Your task to perform on an android device: Go to sound settings Image 0: 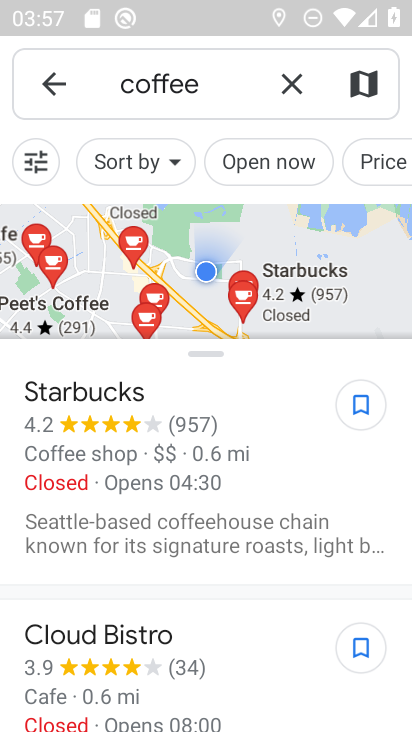
Step 0: press home button
Your task to perform on an android device: Go to sound settings Image 1: 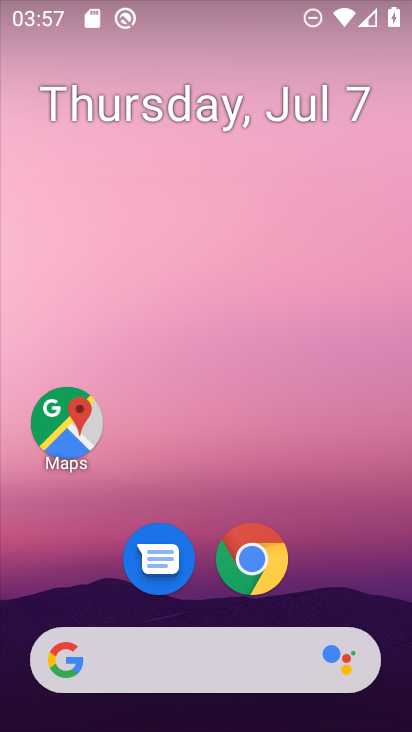
Step 1: drag from (350, 560) to (349, 248)
Your task to perform on an android device: Go to sound settings Image 2: 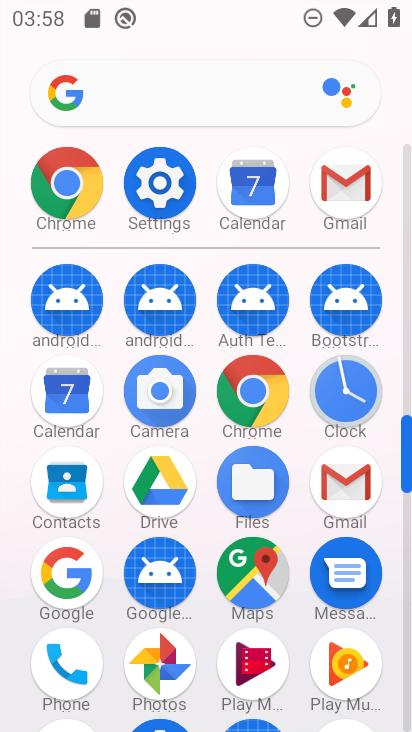
Step 2: click (173, 187)
Your task to perform on an android device: Go to sound settings Image 3: 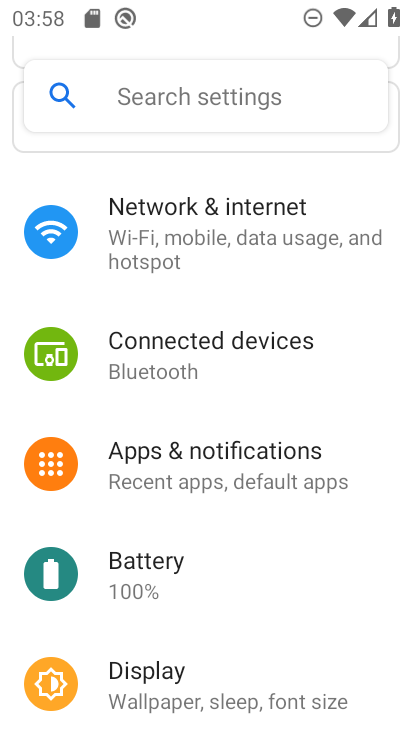
Step 3: drag from (360, 517) to (369, 417)
Your task to perform on an android device: Go to sound settings Image 4: 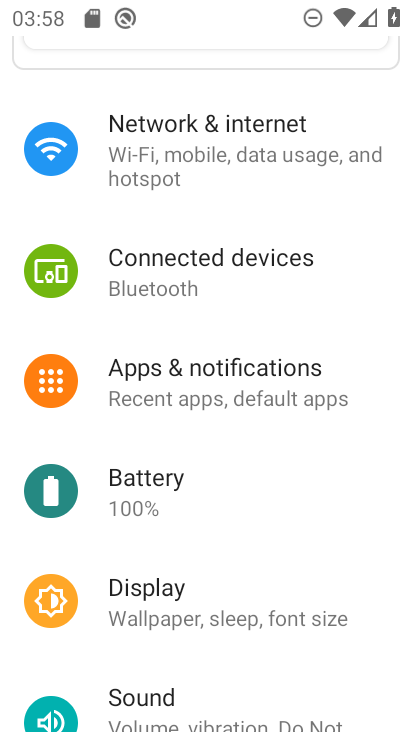
Step 4: drag from (347, 508) to (346, 407)
Your task to perform on an android device: Go to sound settings Image 5: 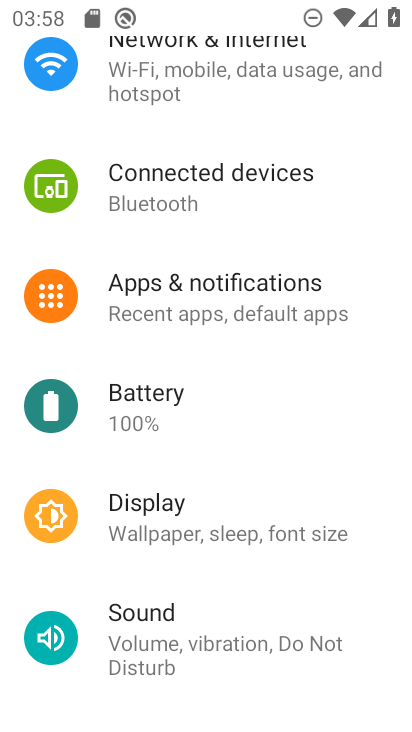
Step 5: drag from (330, 489) to (337, 386)
Your task to perform on an android device: Go to sound settings Image 6: 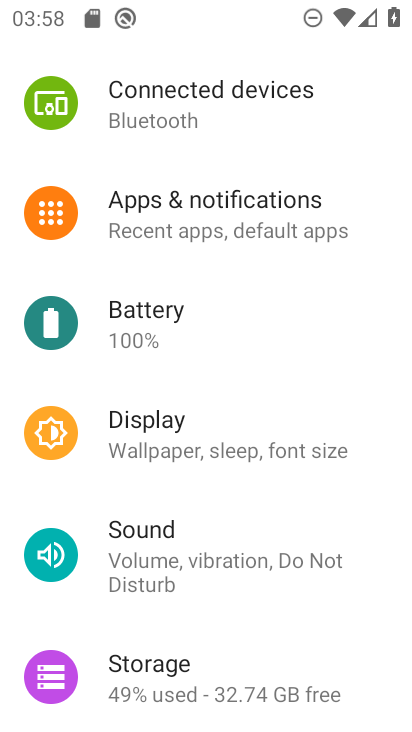
Step 6: drag from (334, 506) to (333, 393)
Your task to perform on an android device: Go to sound settings Image 7: 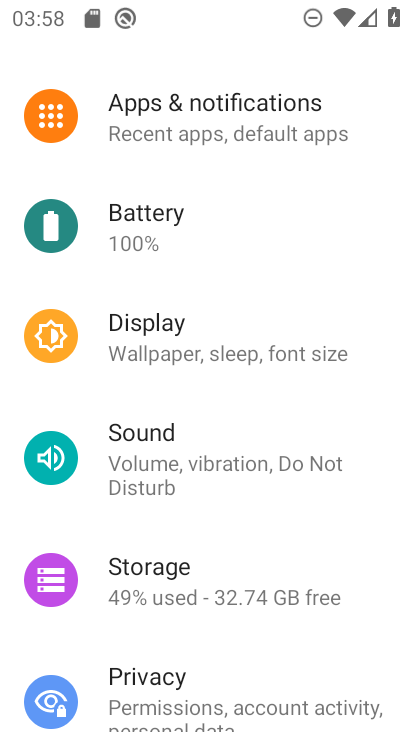
Step 7: drag from (368, 541) to (361, 398)
Your task to perform on an android device: Go to sound settings Image 8: 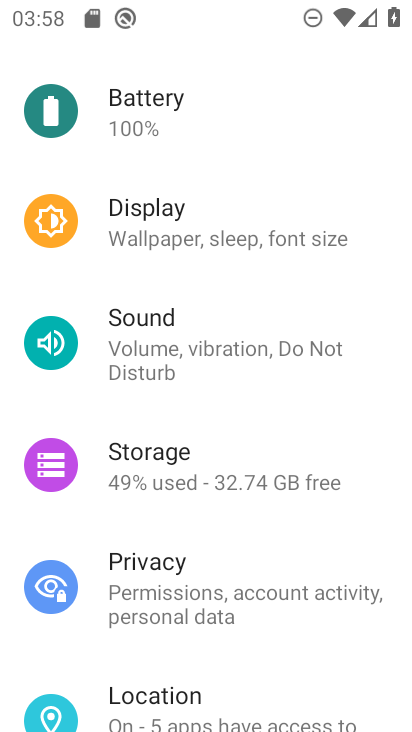
Step 8: drag from (348, 518) to (348, 391)
Your task to perform on an android device: Go to sound settings Image 9: 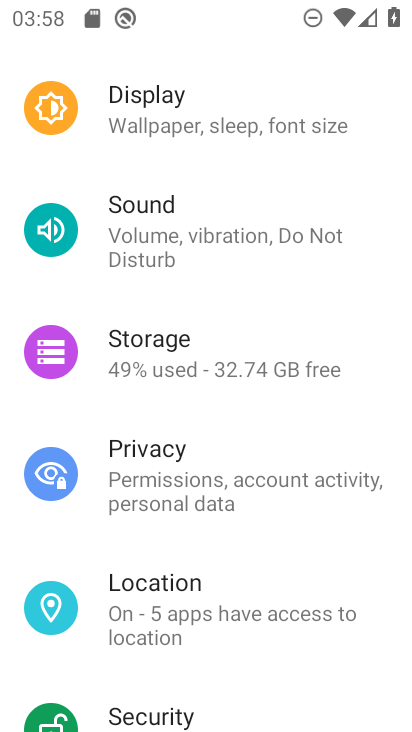
Step 9: drag from (346, 557) to (346, 427)
Your task to perform on an android device: Go to sound settings Image 10: 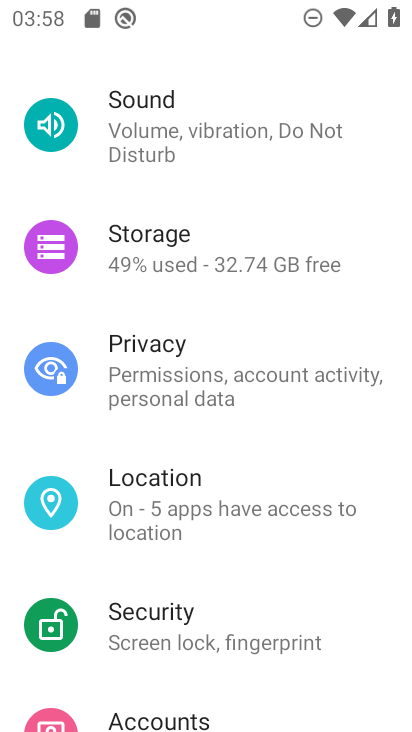
Step 10: click (291, 137)
Your task to perform on an android device: Go to sound settings Image 11: 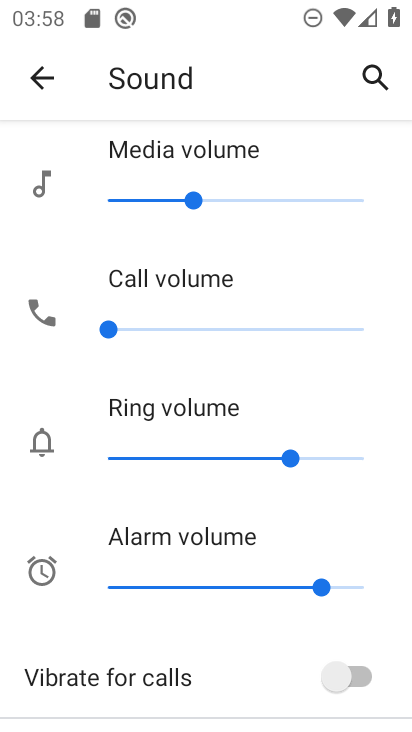
Step 11: task complete